Your task to perform on an android device: Check out the best rated 4k TV on Best Buy. Image 0: 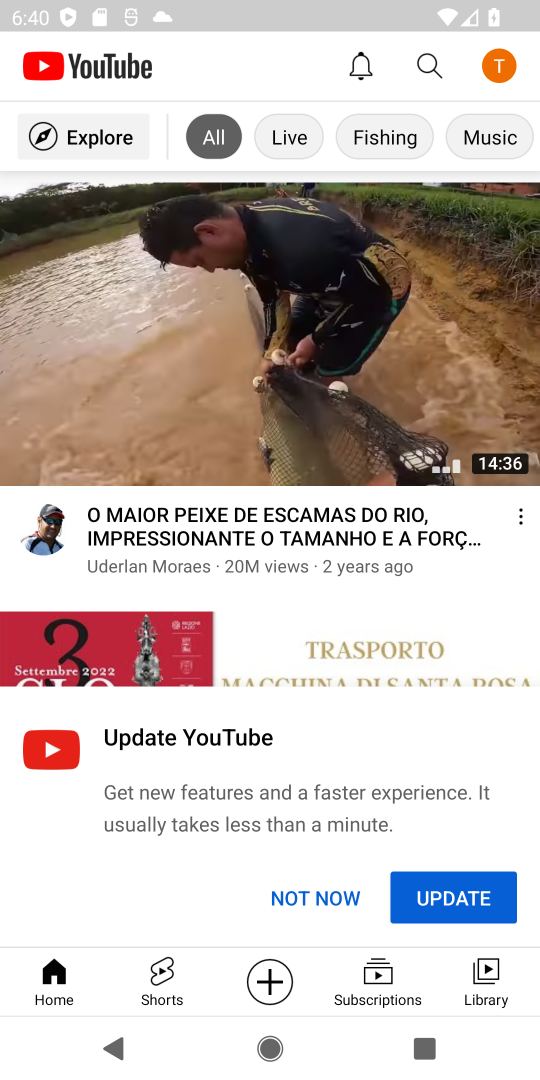
Step 0: press home button
Your task to perform on an android device: Check out the best rated 4k TV on Best Buy. Image 1: 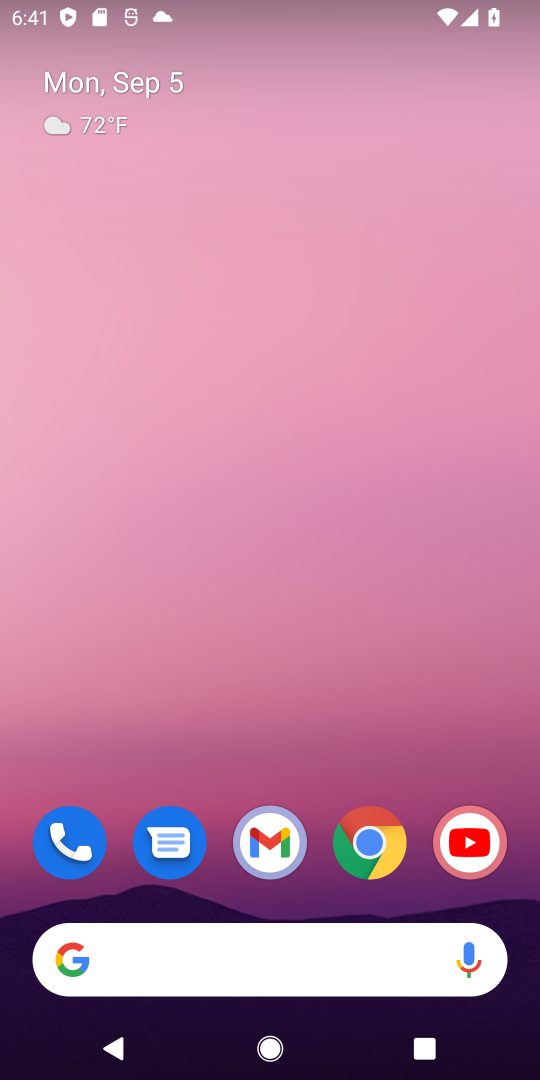
Step 1: click (369, 838)
Your task to perform on an android device: Check out the best rated 4k TV on Best Buy. Image 2: 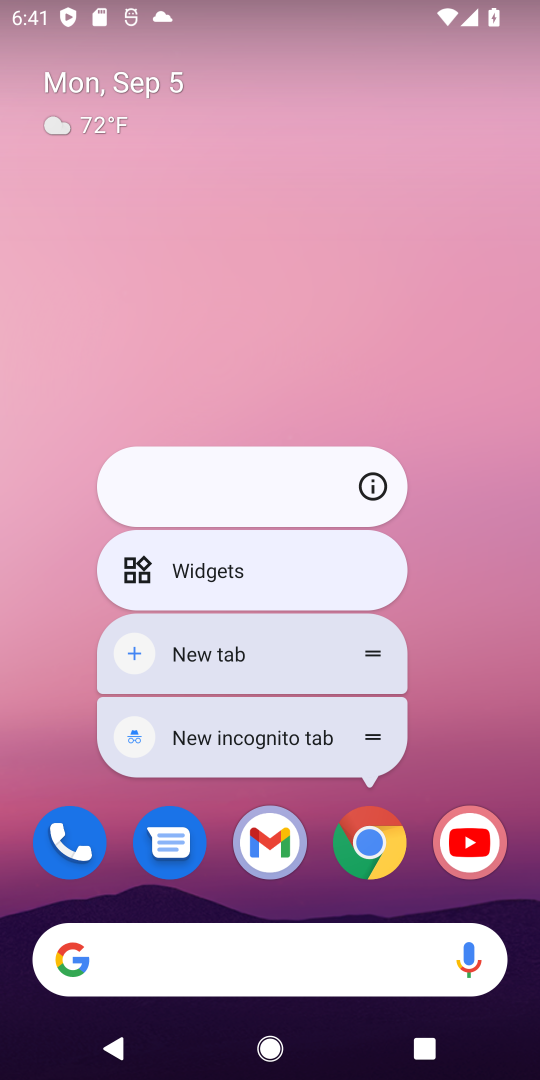
Step 2: click (364, 844)
Your task to perform on an android device: Check out the best rated 4k TV on Best Buy. Image 3: 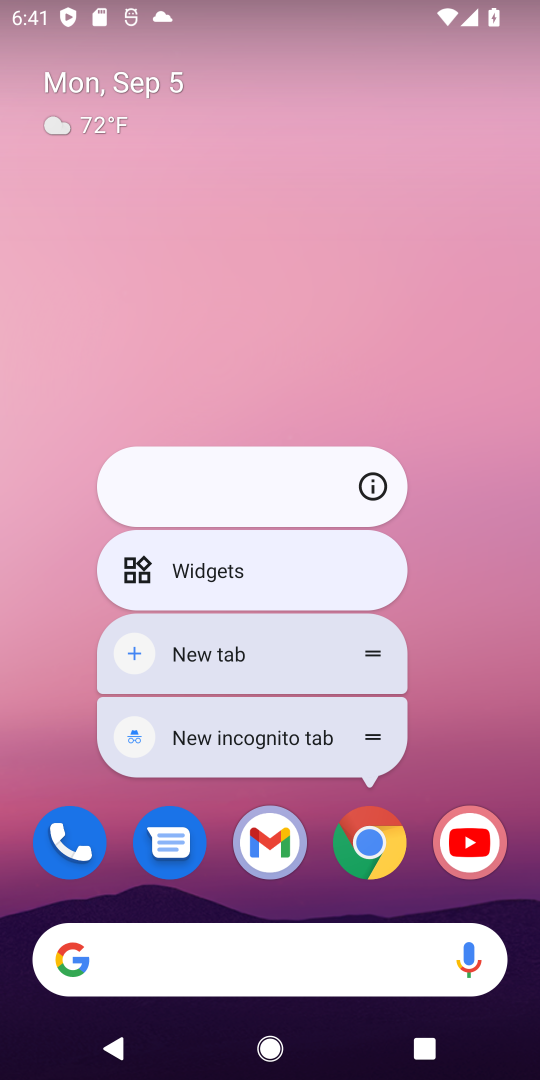
Step 3: click (364, 844)
Your task to perform on an android device: Check out the best rated 4k TV on Best Buy. Image 4: 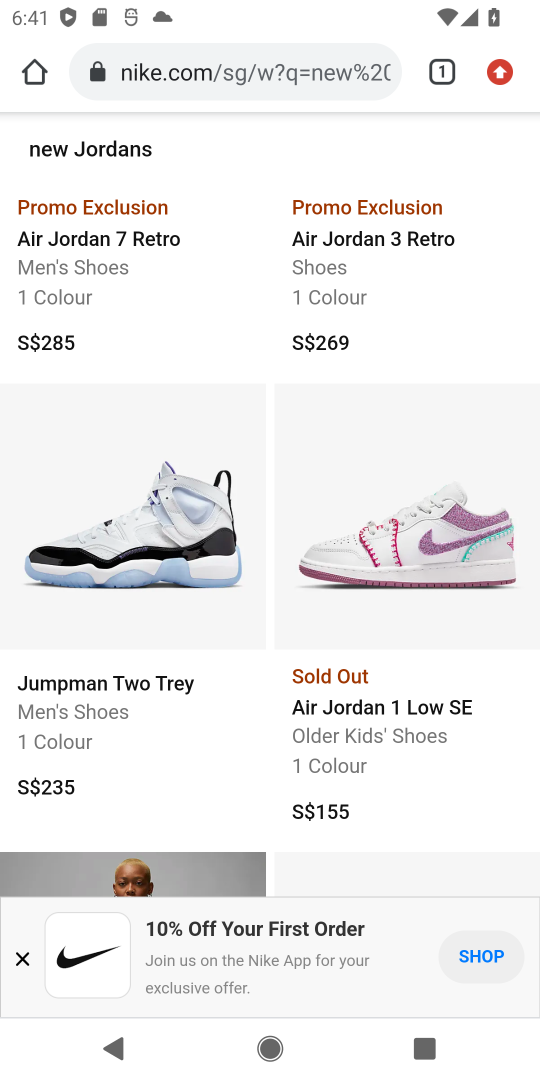
Step 4: click (293, 70)
Your task to perform on an android device: Check out the best rated 4k TV on Best Buy. Image 5: 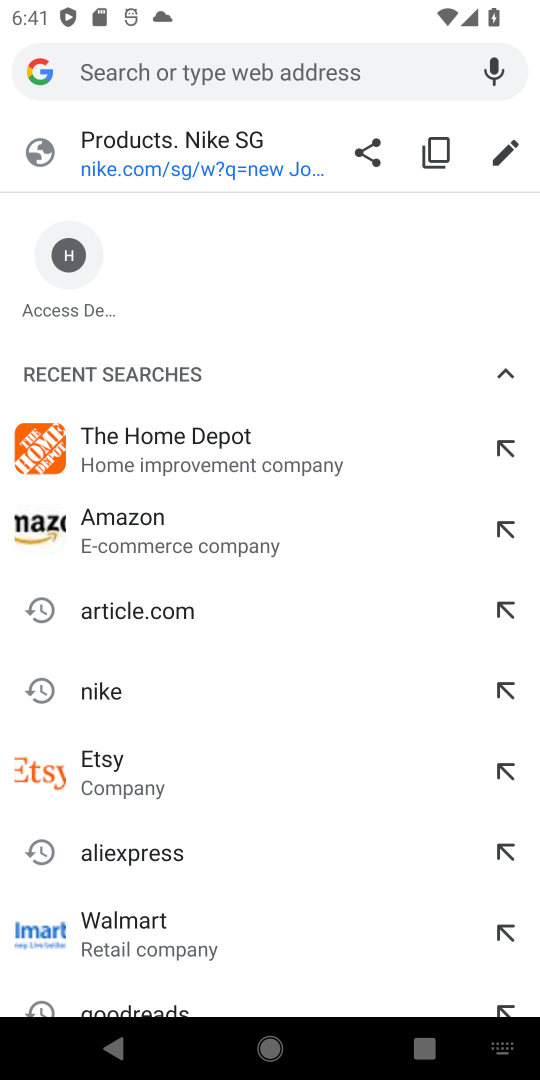
Step 5: type "Best Buy"
Your task to perform on an android device: Check out the best rated 4k TV on Best Buy. Image 6: 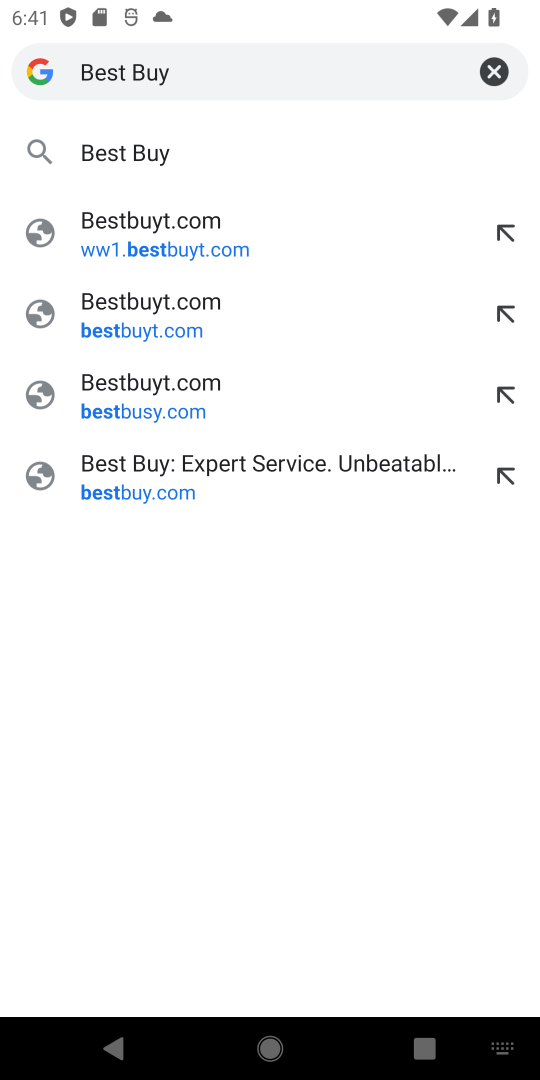
Step 6: click (153, 163)
Your task to perform on an android device: Check out the best rated 4k TV on Best Buy. Image 7: 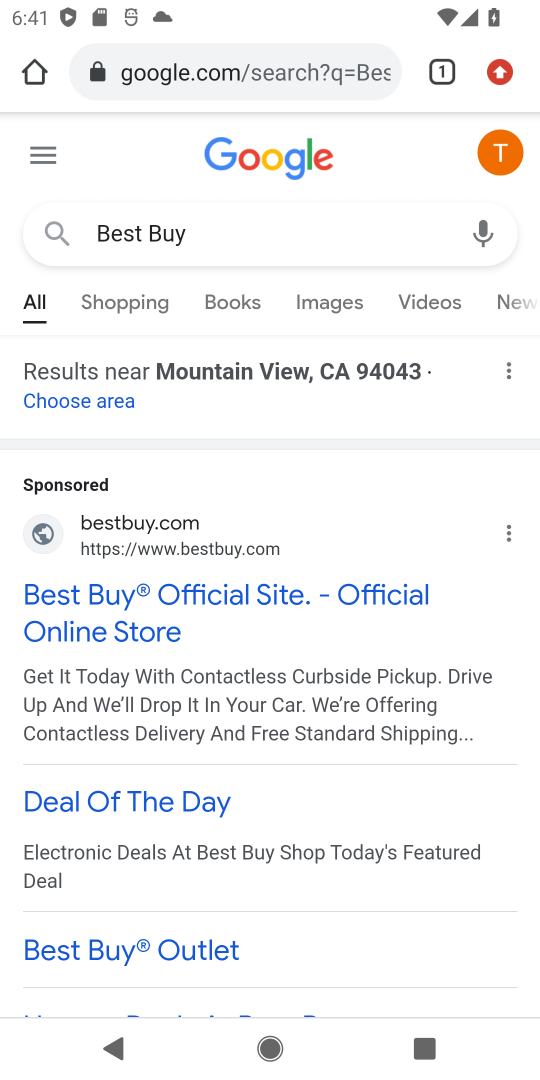
Step 7: drag from (267, 652) to (208, 321)
Your task to perform on an android device: Check out the best rated 4k TV on Best Buy. Image 8: 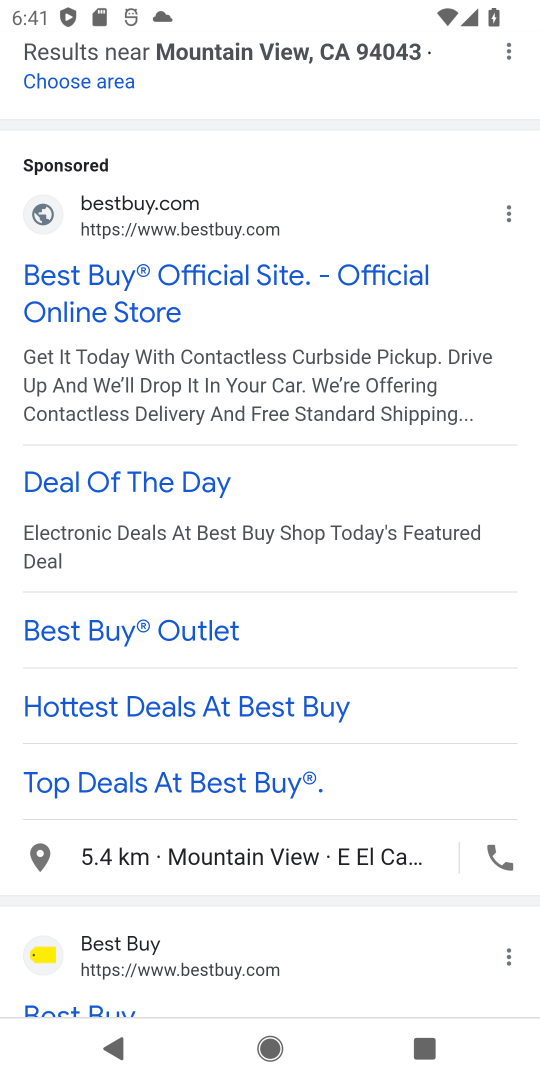
Step 8: drag from (262, 897) to (250, 569)
Your task to perform on an android device: Check out the best rated 4k TV on Best Buy. Image 9: 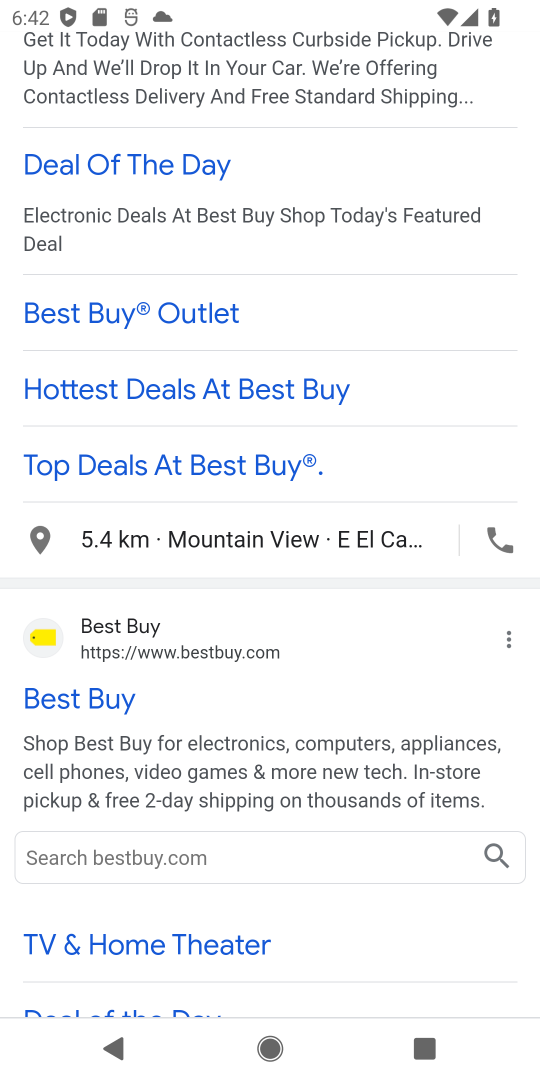
Step 9: click (112, 712)
Your task to perform on an android device: Check out the best rated 4k TV on Best Buy. Image 10: 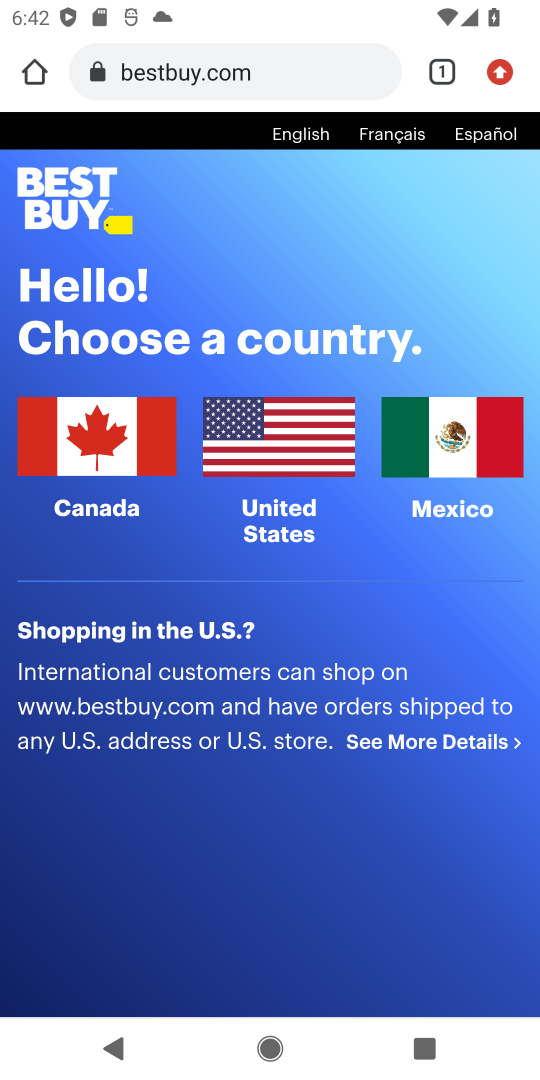
Step 10: click (299, 474)
Your task to perform on an android device: Check out the best rated 4k TV on Best Buy. Image 11: 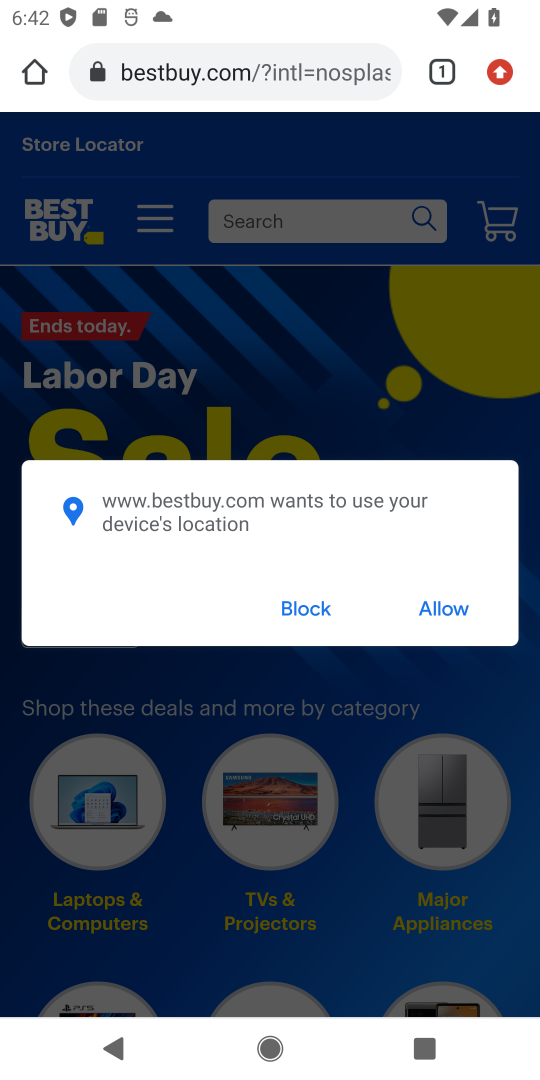
Step 11: click (277, 226)
Your task to perform on an android device: Check out the best rated 4k TV on Best Buy. Image 12: 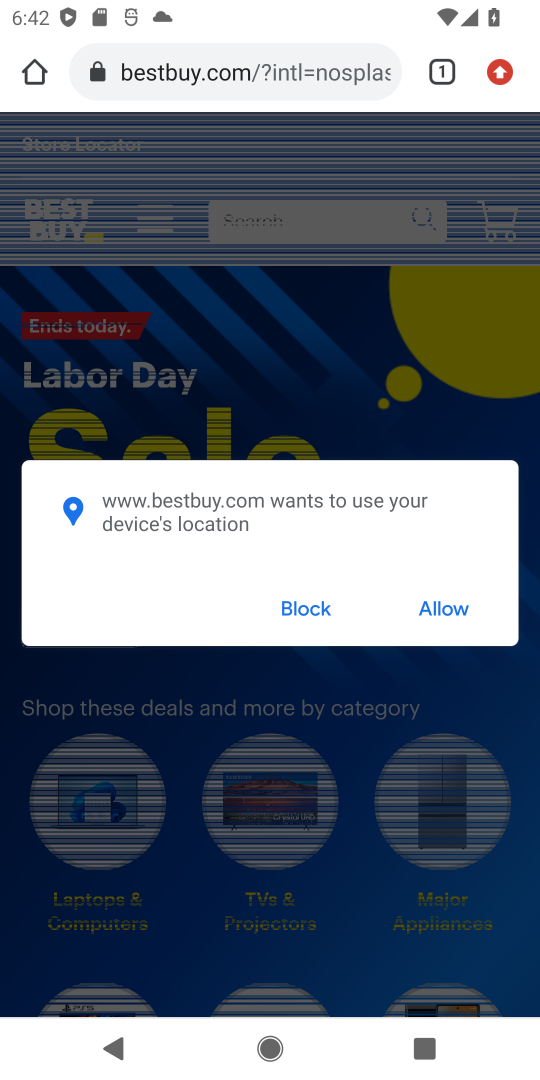
Step 12: click (439, 609)
Your task to perform on an android device: Check out the best rated 4k TV on Best Buy. Image 13: 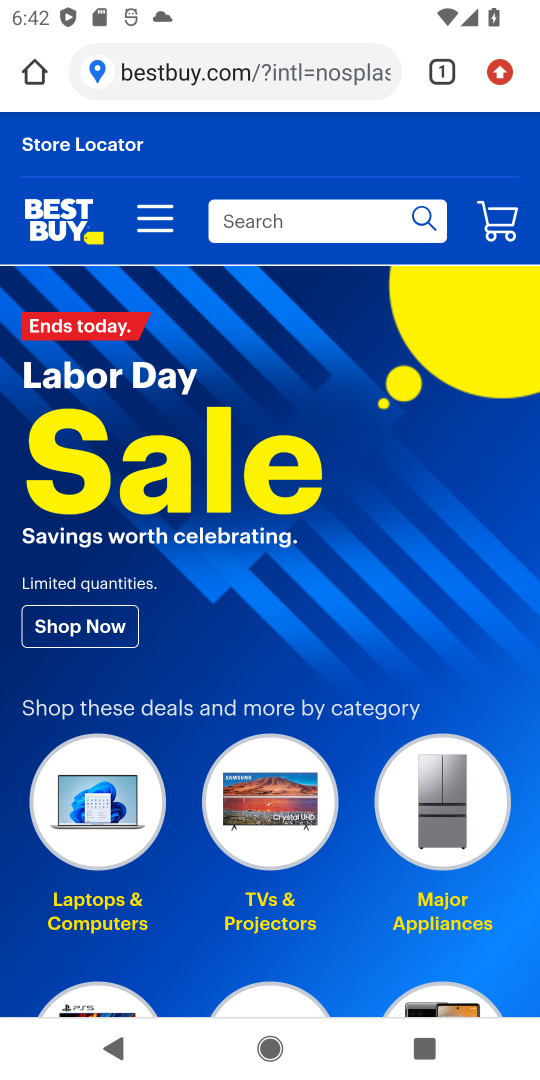
Step 13: click (351, 221)
Your task to perform on an android device: Check out the best rated 4k TV on Best Buy. Image 14: 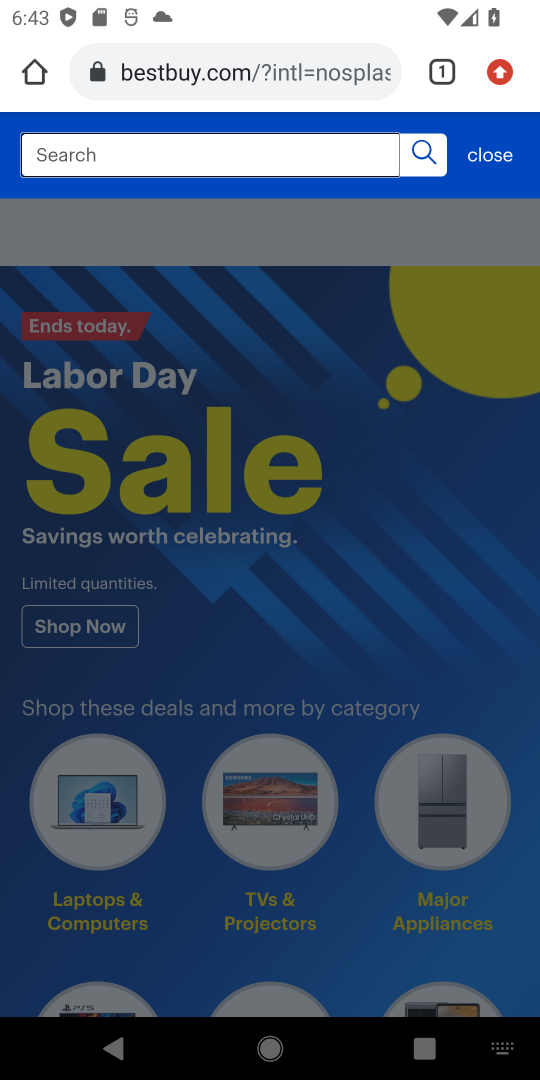
Step 14: type " best rated 4k TV"
Your task to perform on an android device: Check out the best rated 4k TV on Best Buy. Image 15: 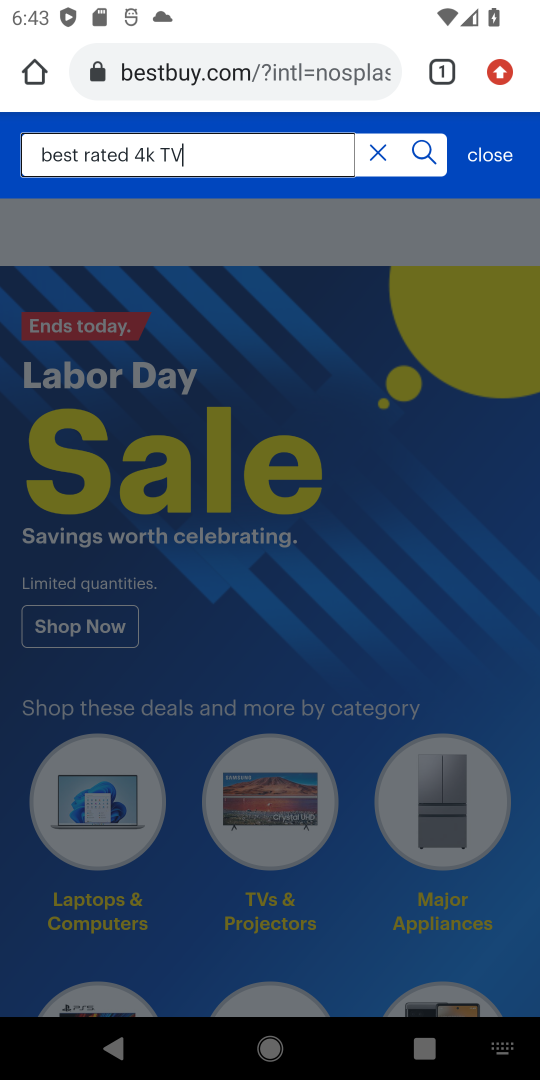
Step 15: click (420, 155)
Your task to perform on an android device: Check out the best rated 4k TV on Best Buy. Image 16: 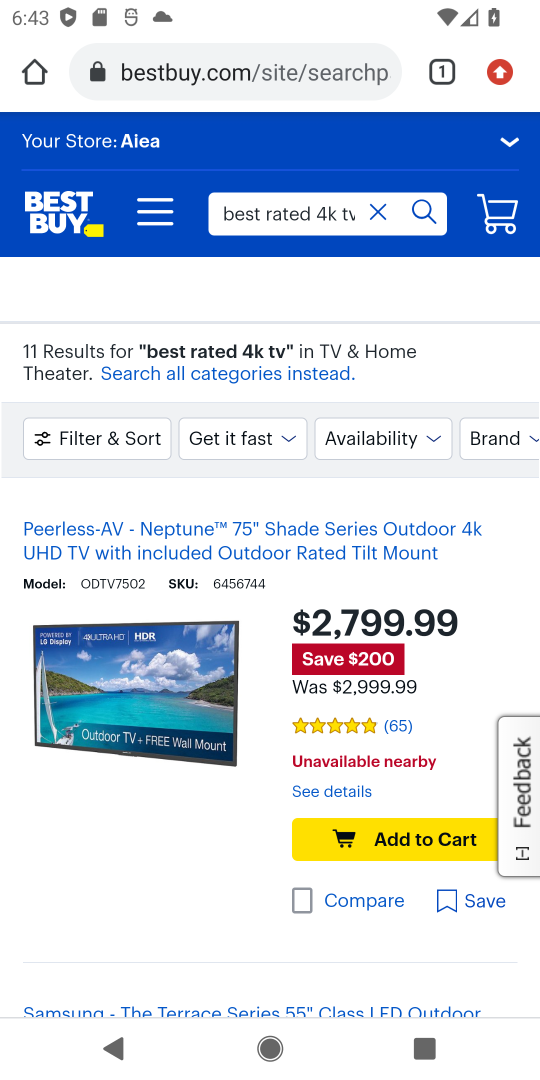
Step 16: drag from (125, 949) to (53, 484)
Your task to perform on an android device: Check out the best rated 4k TV on Best Buy. Image 17: 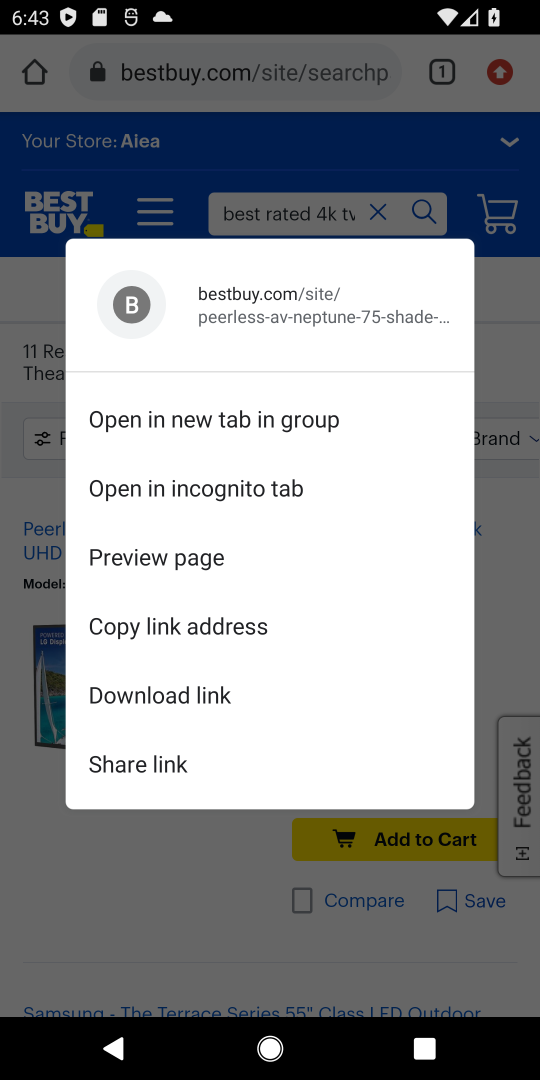
Step 17: click (519, 366)
Your task to perform on an android device: Check out the best rated 4k TV on Best Buy. Image 18: 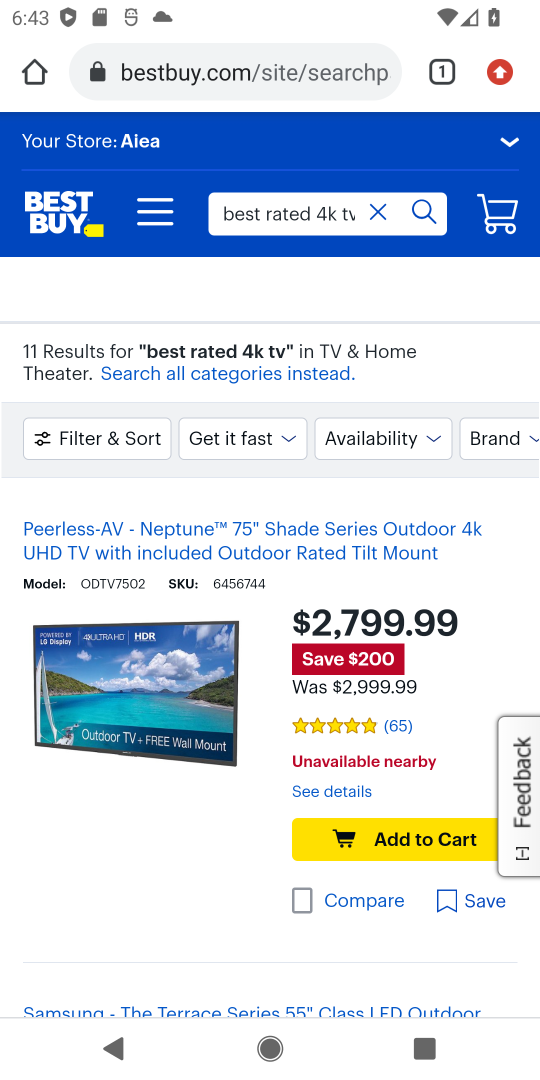
Step 18: task complete